Your task to perform on an android device: Open wifi settings Image 0: 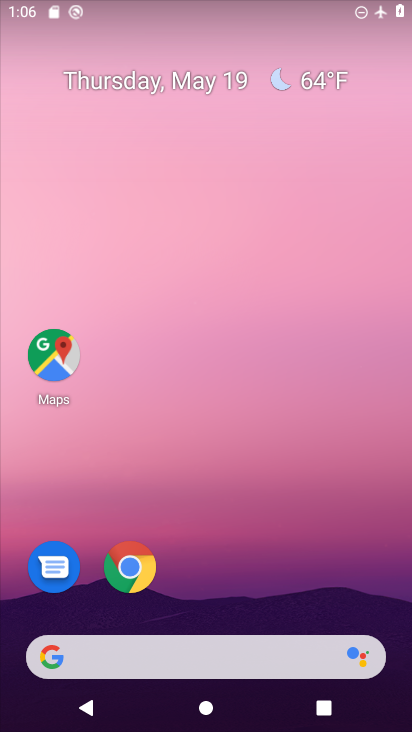
Step 0: drag from (208, 531) to (257, 275)
Your task to perform on an android device: Open wifi settings Image 1: 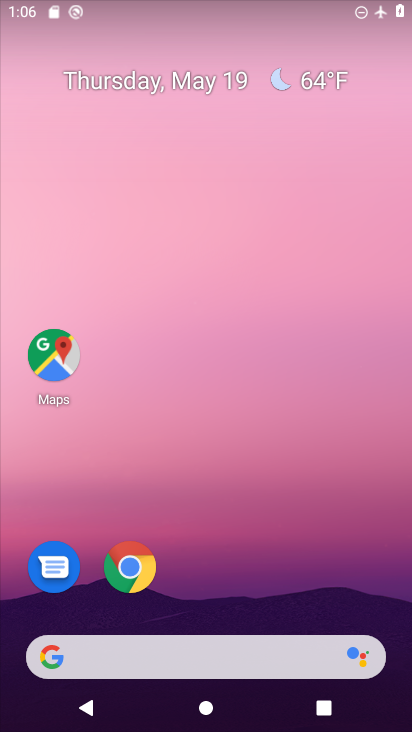
Step 1: drag from (259, 516) to (284, 192)
Your task to perform on an android device: Open wifi settings Image 2: 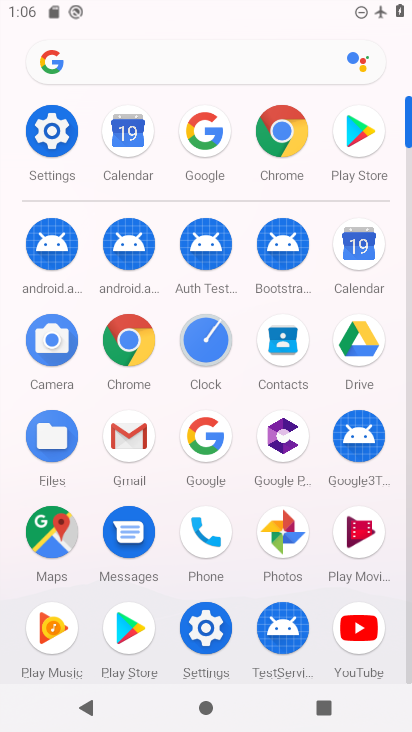
Step 2: click (55, 137)
Your task to perform on an android device: Open wifi settings Image 3: 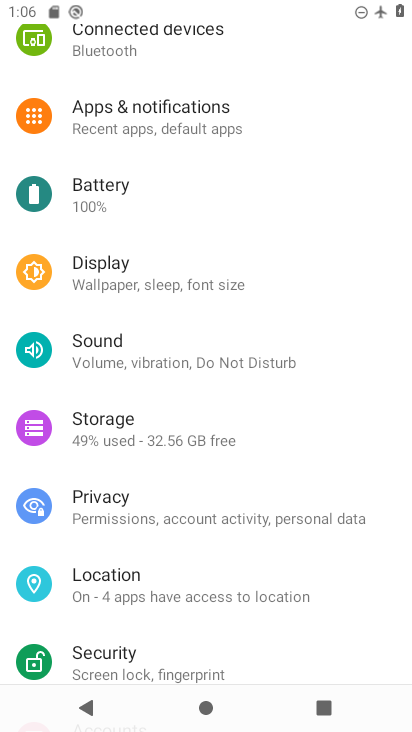
Step 3: drag from (149, 159) to (168, 560)
Your task to perform on an android device: Open wifi settings Image 4: 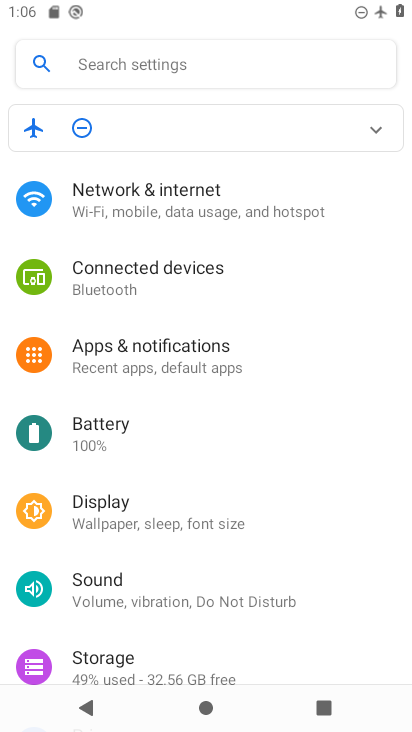
Step 4: click (154, 208)
Your task to perform on an android device: Open wifi settings Image 5: 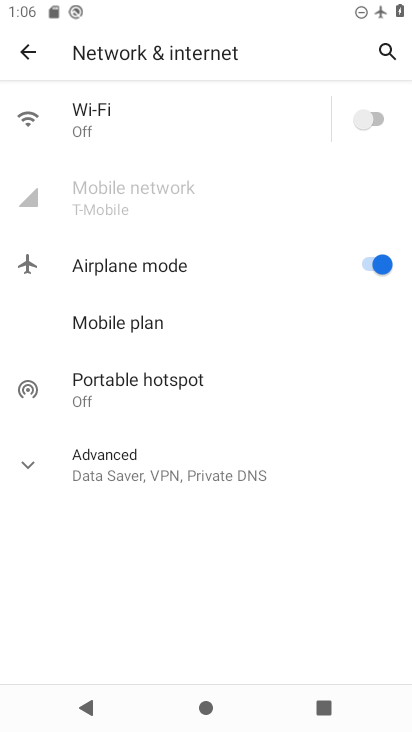
Step 5: click (160, 125)
Your task to perform on an android device: Open wifi settings Image 6: 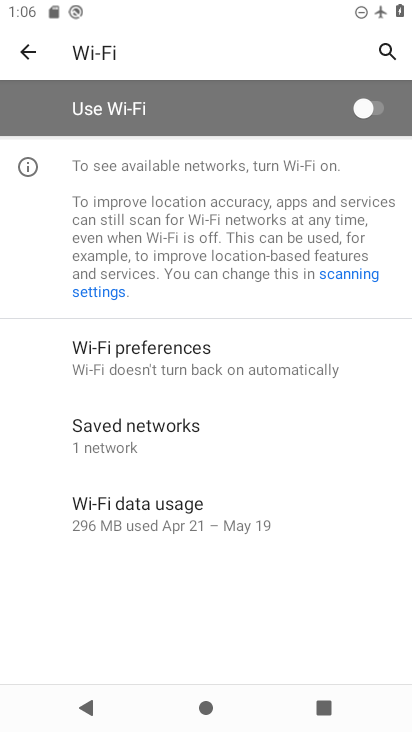
Step 6: task complete